Your task to perform on an android device: Go to network settings Image 0: 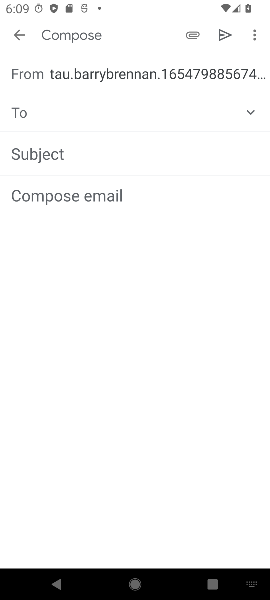
Step 0: press home button
Your task to perform on an android device: Go to network settings Image 1: 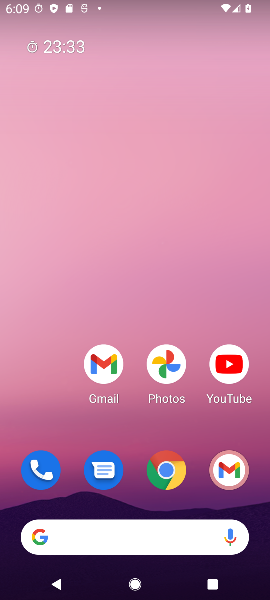
Step 1: drag from (208, 505) to (193, 45)
Your task to perform on an android device: Go to network settings Image 2: 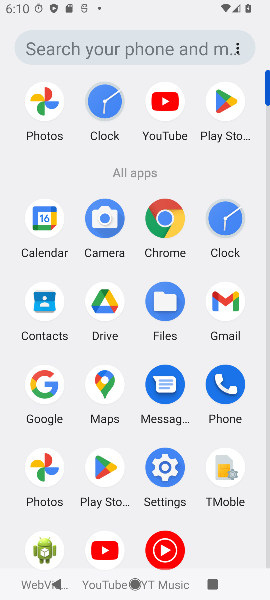
Step 2: click (164, 463)
Your task to perform on an android device: Go to network settings Image 3: 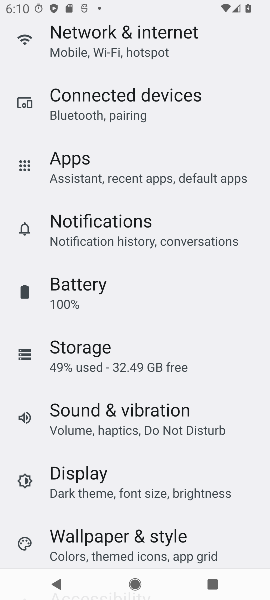
Step 3: click (126, 49)
Your task to perform on an android device: Go to network settings Image 4: 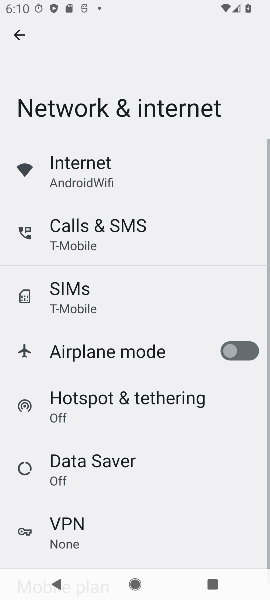
Step 4: task complete